Your task to perform on an android device: change the clock style Image 0: 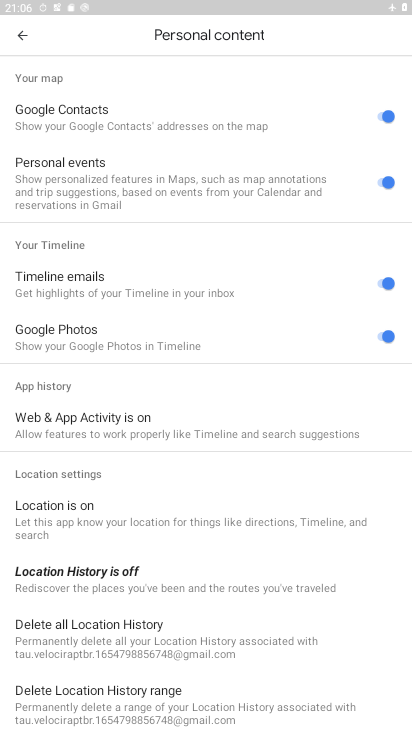
Step 0: press home button
Your task to perform on an android device: change the clock style Image 1: 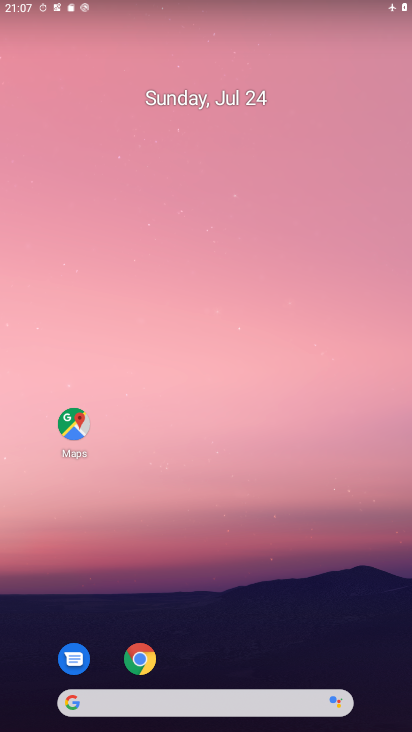
Step 1: drag from (219, 731) to (187, 281)
Your task to perform on an android device: change the clock style Image 2: 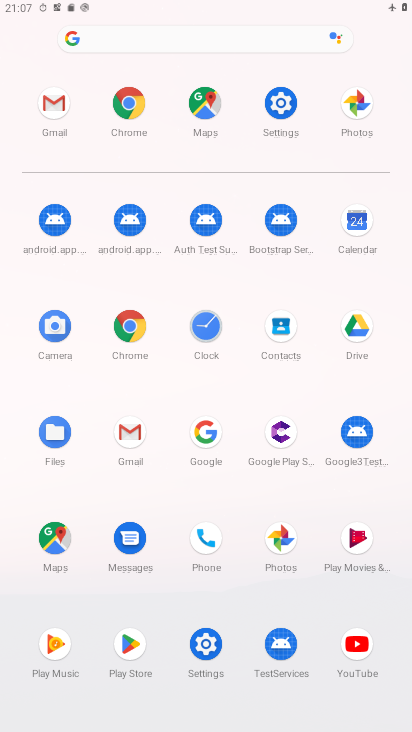
Step 2: click (206, 333)
Your task to perform on an android device: change the clock style Image 3: 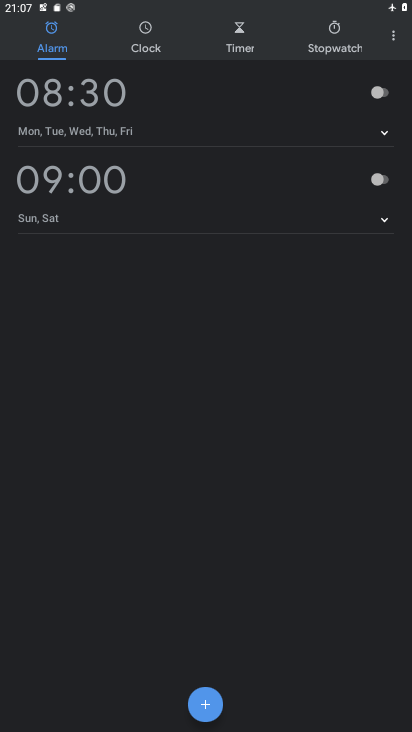
Step 3: click (395, 38)
Your task to perform on an android device: change the clock style Image 4: 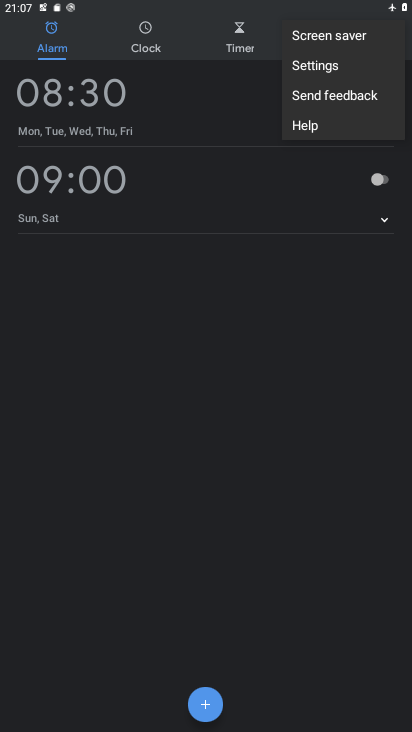
Step 4: click (331, 65)
Your task to perform on an android device: change the clock style Image 5: 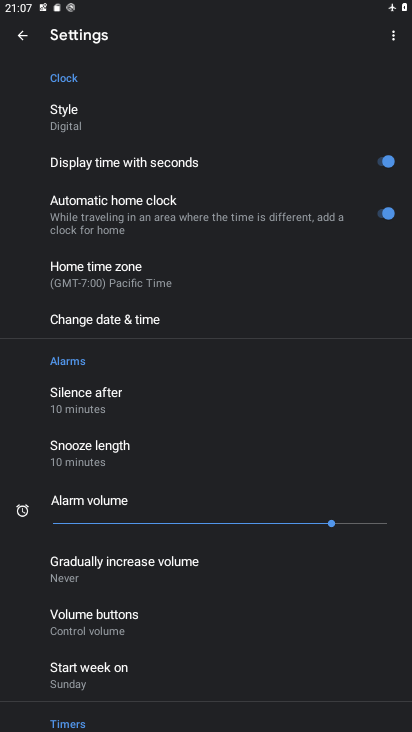
Step 5: click (70, 120)
Your task to perform on an android device: change the clock style Image 6: 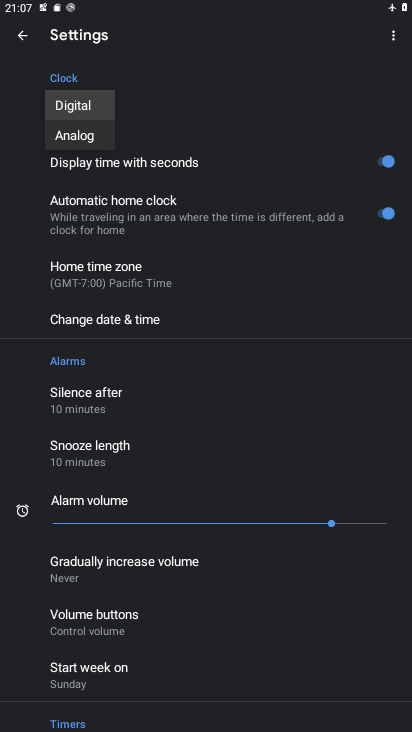
Step 6: click (77, 130)
Your task to perform on an android device: change the clock style Image 7: 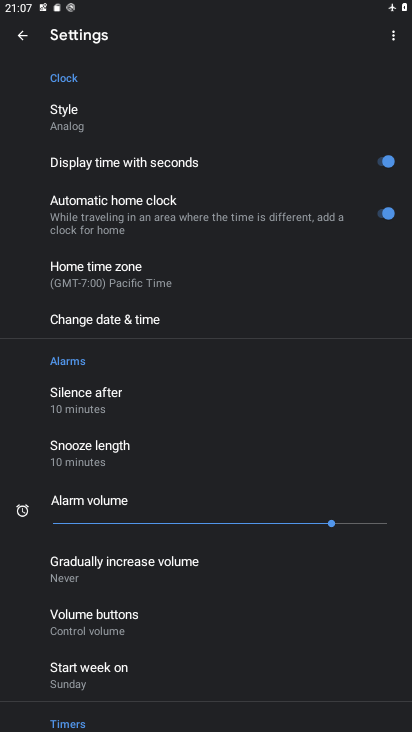
Step 7: task complete